Your task to perform on an android device: Go to calendar. Show me events next week Image 0: 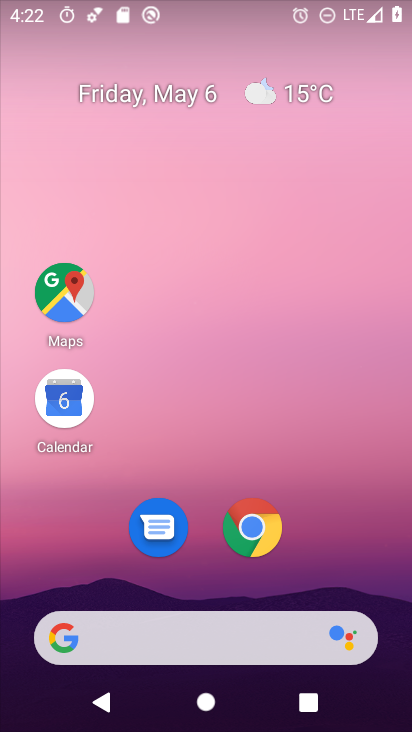
Step 0: drag from (339, 513) to (307, 15)
Your task to perform on an android device: Go to calendar. Show me events next week Image 1: 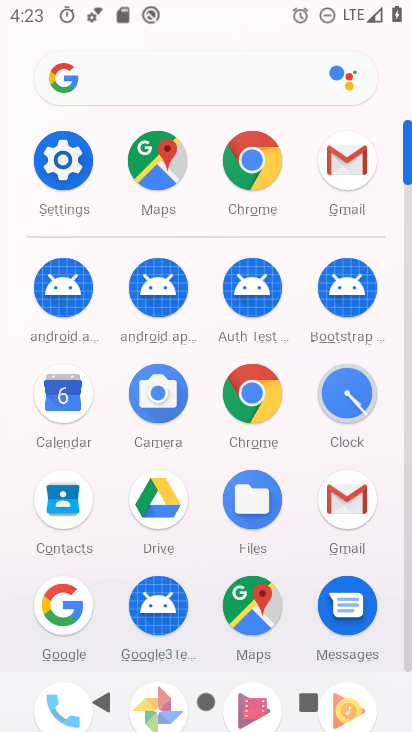
Step 1: click (61, 393)
Your task to perform on an android device: Go to calendar. Show me events next week Image 2: 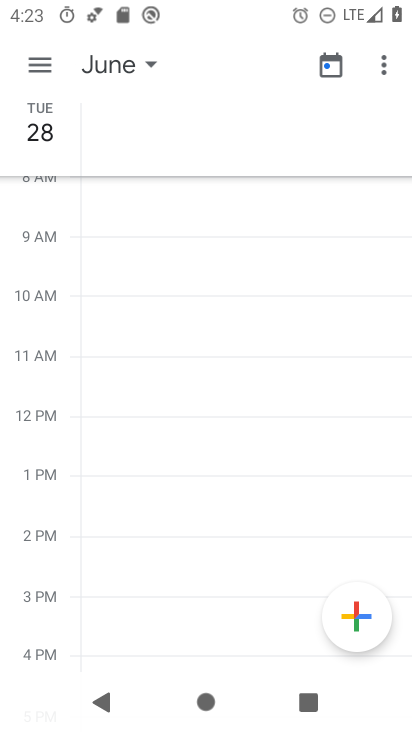
Step 2: click (114, 70)
Your task to perform on an android device: Go to calendar. Show me events next week Image 3: 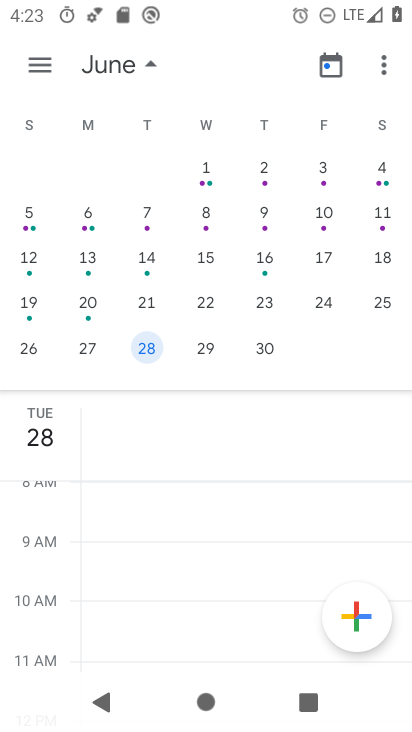
Step 3: drag from (73, 227) to (410, 242)
Your task to perform on an android device: Go to calendar. Show me events next week Image 4: 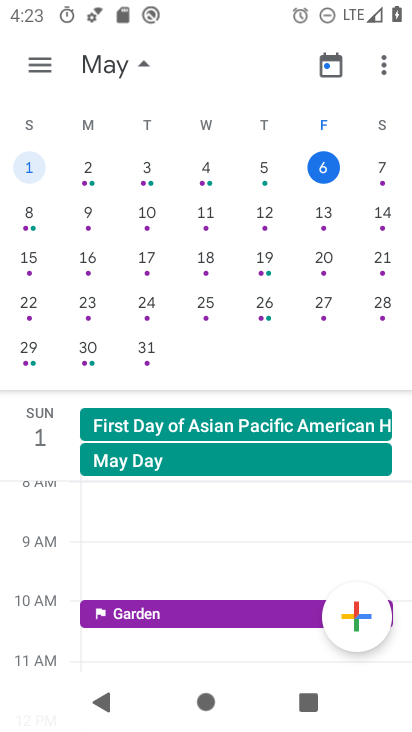
Step 4: click (263, 212)
Your task to perform on an android device: Go to calendar. Show me events next week Image 5: 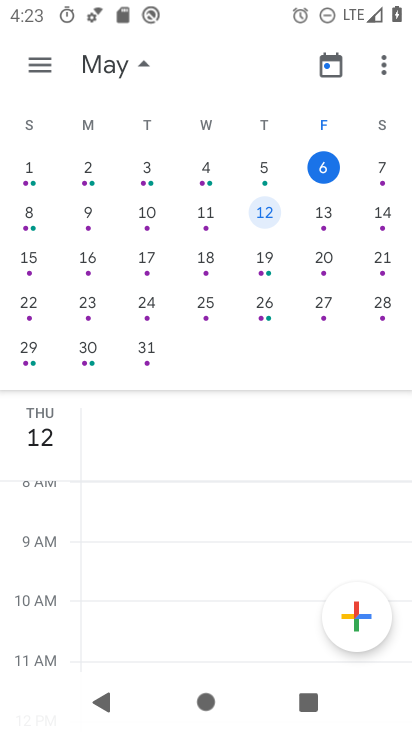
Step 5: task complete